Your task to perform on an android device: search for starred emails in the gmail app Image 0: 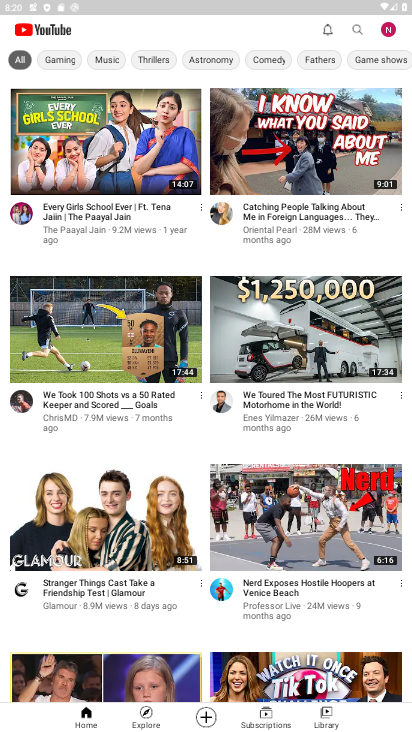
Step 0: press home button
Your task to perform on an android device: search for starred emails in the gmail app Image 1: 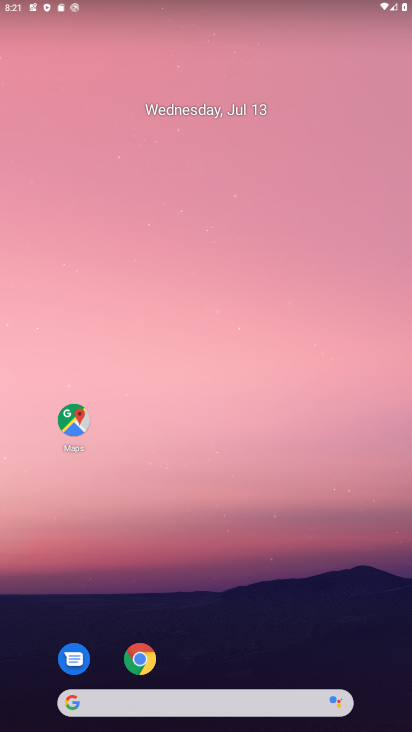
Step 1: drag from (192, 653) to (239, 268)
Your task to perform on an android device: search for starred emails in the gmail app Image 2: 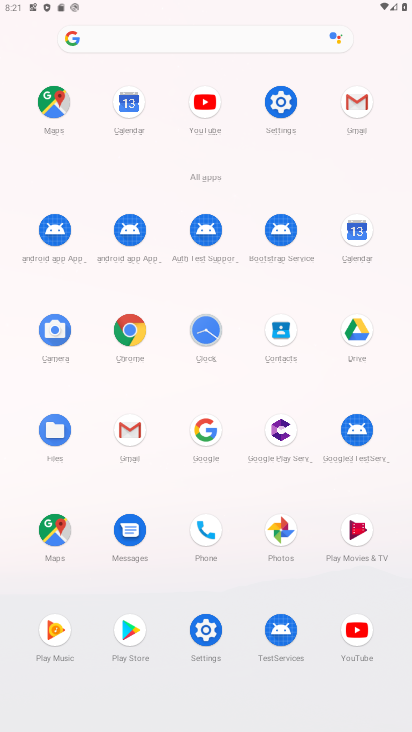
Step 2: click (337, 99)
Your task to perform on an android device: search for starred emails in the gmail app Image 3: 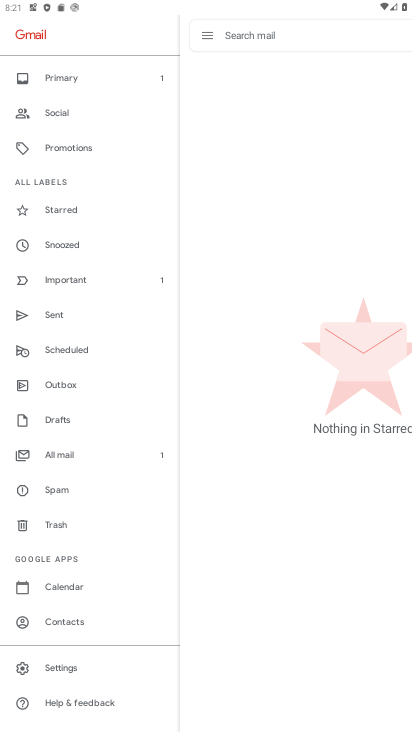
Step 3: click (73, 204)
Your task to perform on an android device: search for starred emails in the gmail app Image 4: 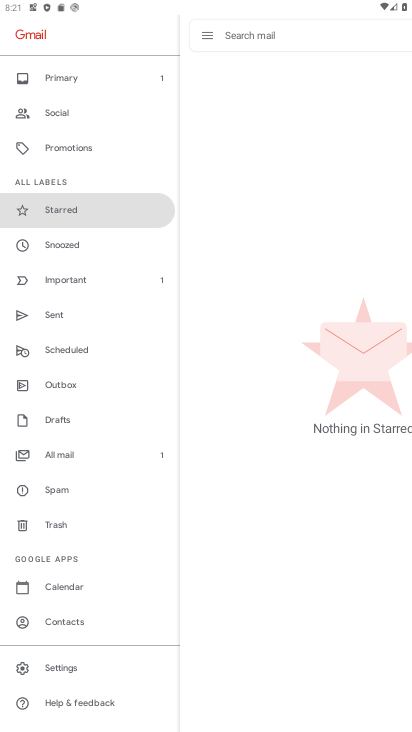
Step 4: task complete